Your task to perform on an android device: open device folders in google photos Image 0: 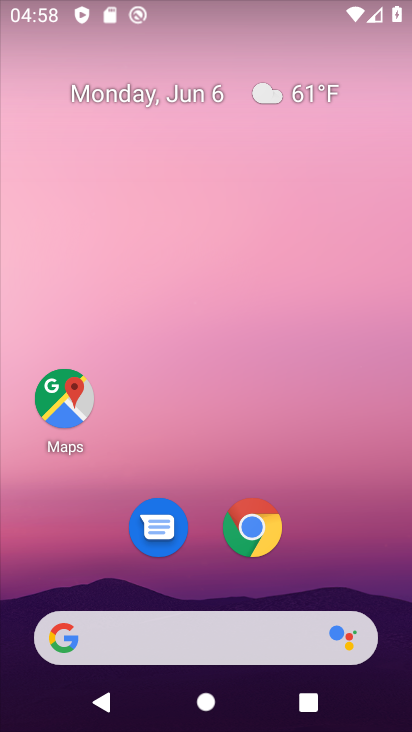
Step 0: drag from (396, 686) to (348, 127)
Your task to perform on an android device: open device folders in google photos Image 1: 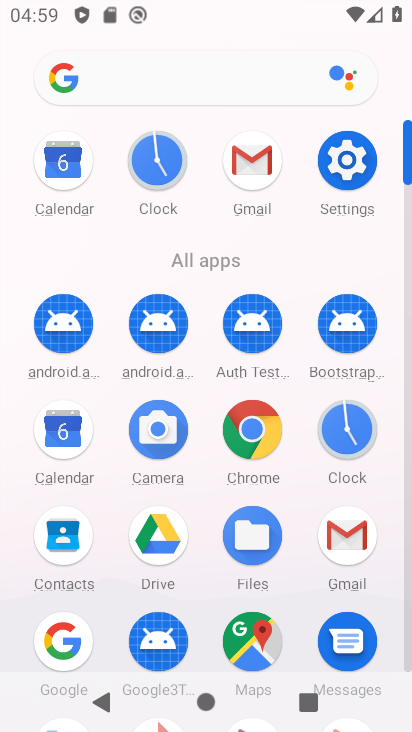
Step 1: drag from (106, 634) to (95, 364)
Your task to perform on an android device: open device folders in google photos Image 2: 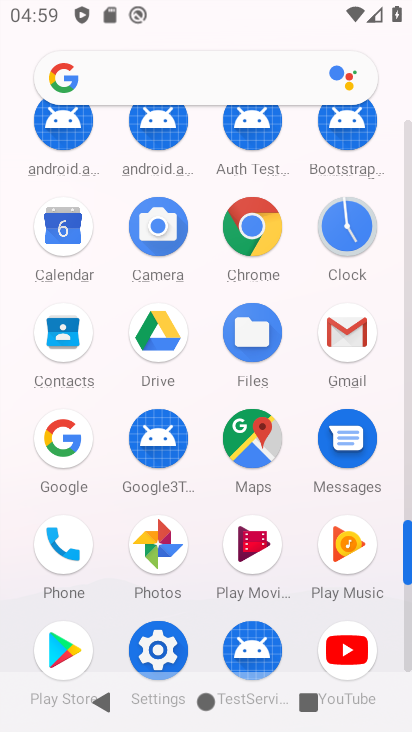
Step 2: click (148, 561)
Your task to perform on an android device: open device folders in google photos Image 3: 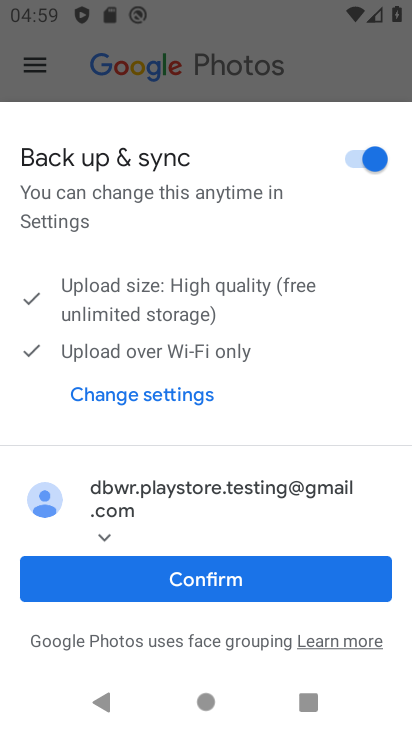
Step 3: click (228, 573)
Your task to perform on an android device: open device folders in google photos Image 4: 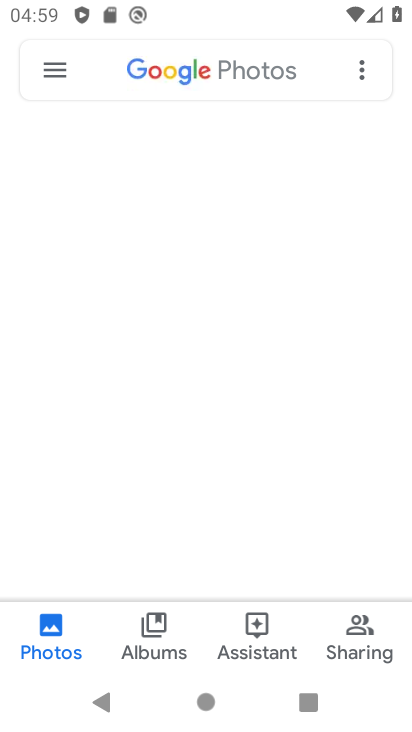
Step 4: click (41, 57)
Your task to perform on an android device: open device folders in google photos Image 5: 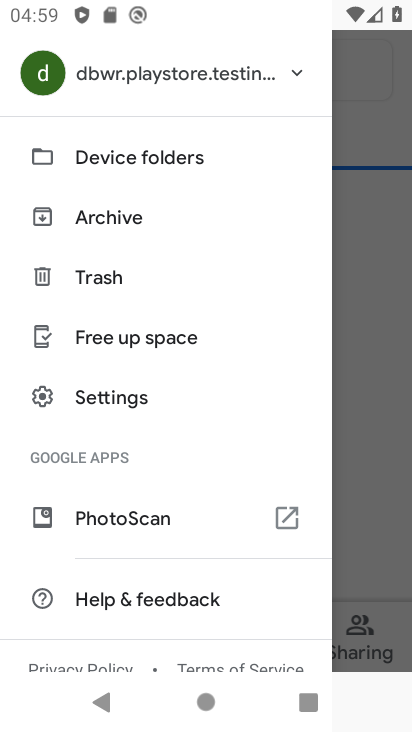
Step 5: click (135, 157)
Your task to perform on an android device: open device folders in google photos Image 6: 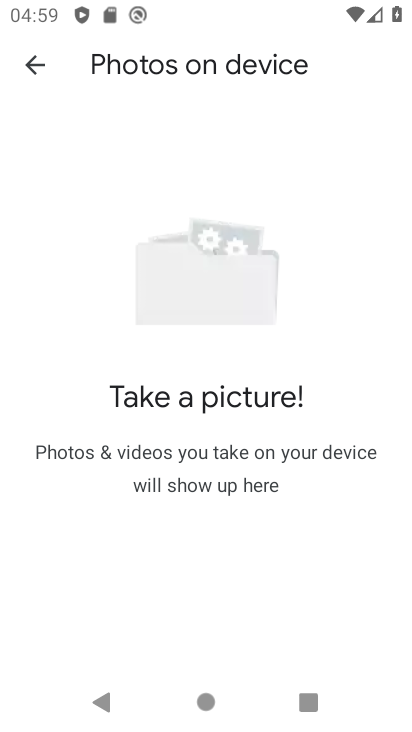
Step 6: task complete